Your task to perform on an android device: change text size in settings app Image 0: 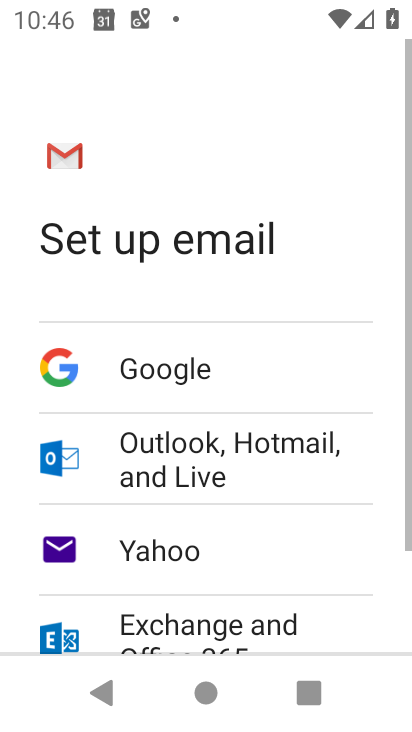
Step 0: press home button
Your task to perform on an android device: change text size in settings app Image 1: 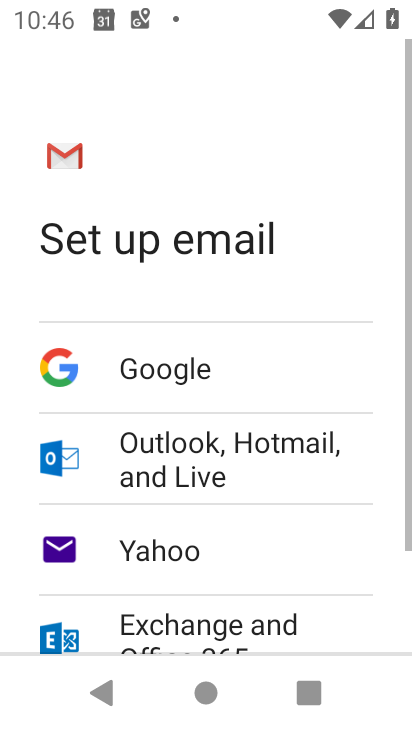
Step 1: press home button
Your task to perform on an android device: change text size in settings app Image 2: 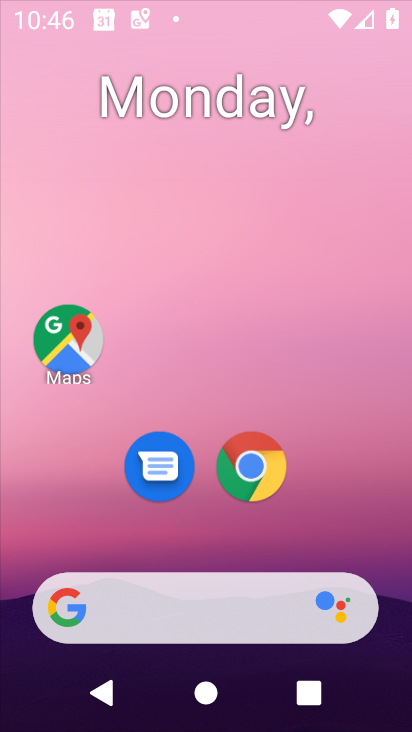
Step 2: press home button
Your task to perform on an android device: change text size in settings app Image 3: 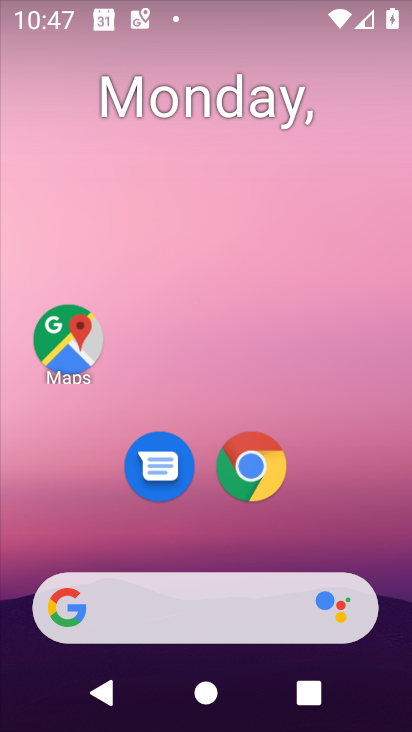
Step 3: drag from (383, 583) to (188, 216)
Your task to perform on an android device: change text size in settings app Image 4: 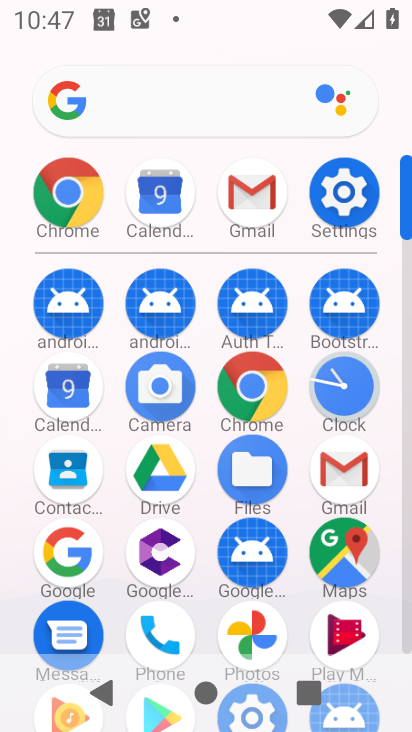
Step 4: click (342, 191)
Your task to perform on an android device: change text size in settings app Image 5: 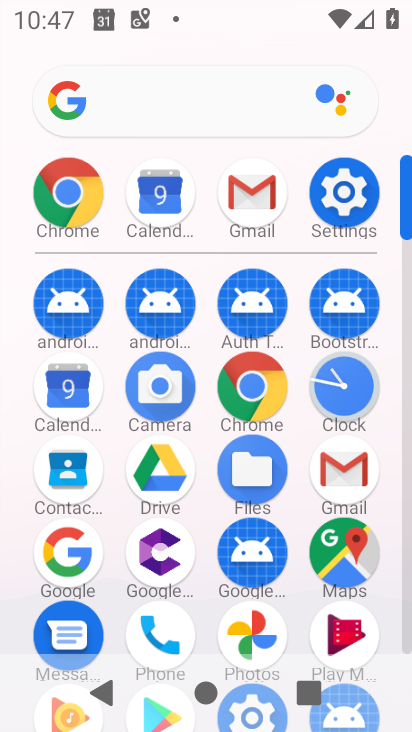
Step 5: click (343, 190)
Your task to perform on an android device: change text size in settings app Image 6: 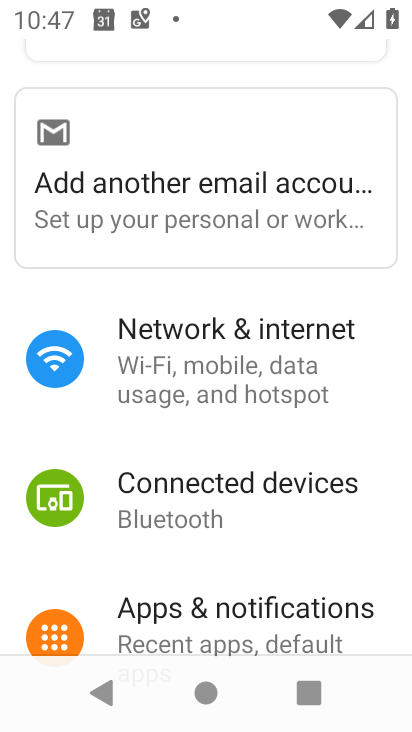
Step 6: drag from (289, 542) to (270, 170)
Your task to perform on an android device: change text size in settings app Image 7: 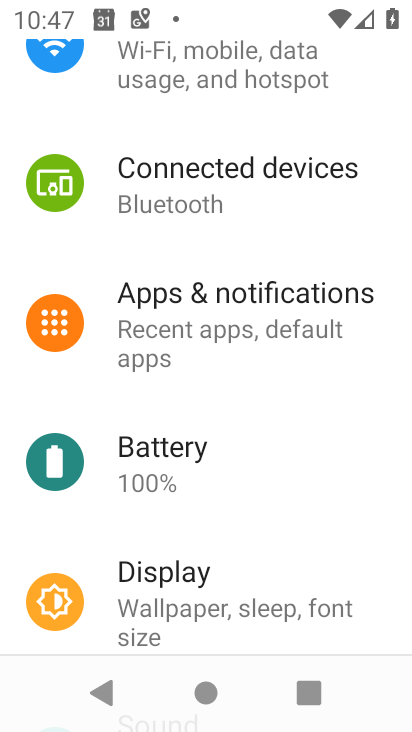
Step 7: drag from (291, 411) to (277, 251)
Your task to perform on an android device: change text size in settings app Image 8: 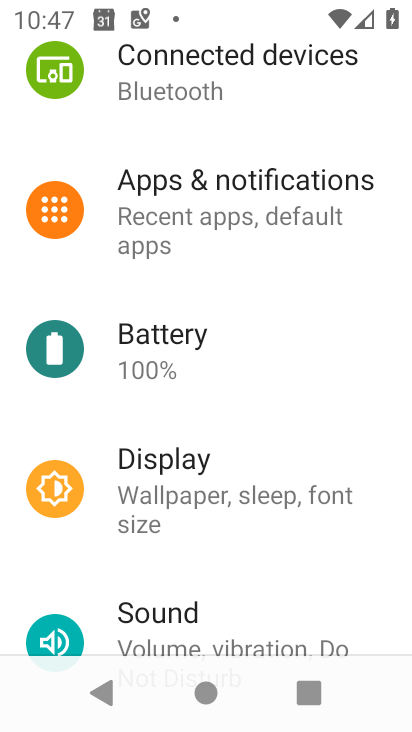
Step 8: click (195, 488)
Your task to perform on an android device: change text size in settings app Image 9: 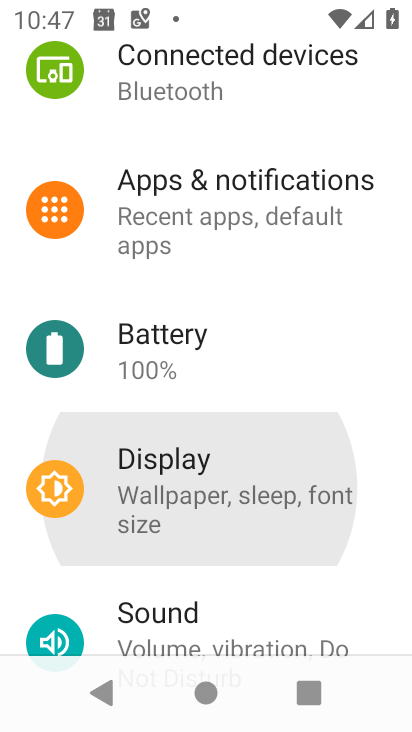
Step 9: click (195, 488)
Your task to perform on an android device: change text size in settings app Image 10: 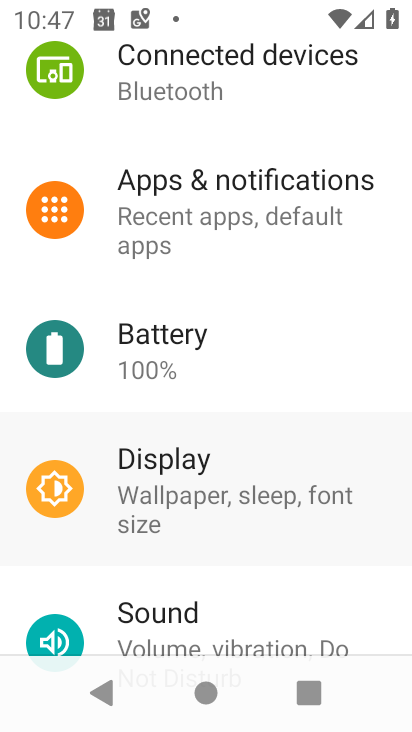
Step 10: click (194, 488)
Your task to perform on an android device: change text size in settings app Image 11: 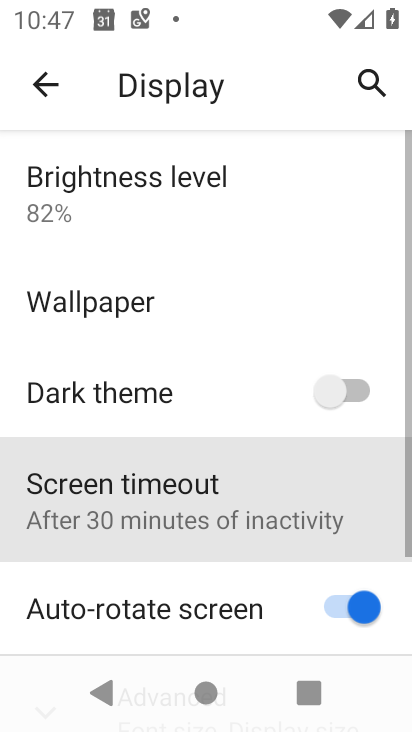
Step 11: click (195, 489)
Your task to perform on an android device: change text size in settings app Image 12: 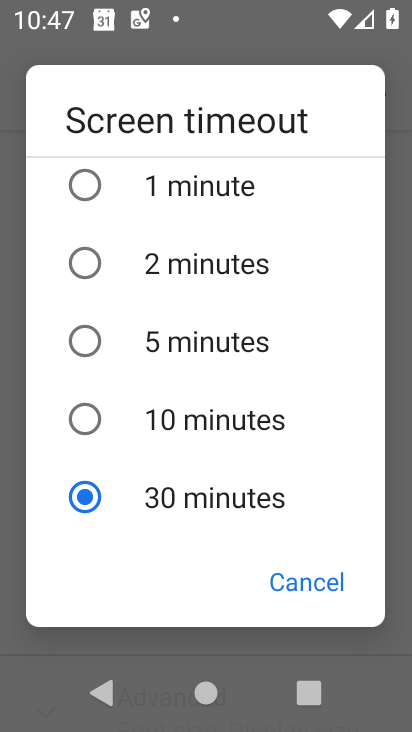
Step 12: click (313, 582)
Your task to perform on an android device: change text size in settings app Image 13: 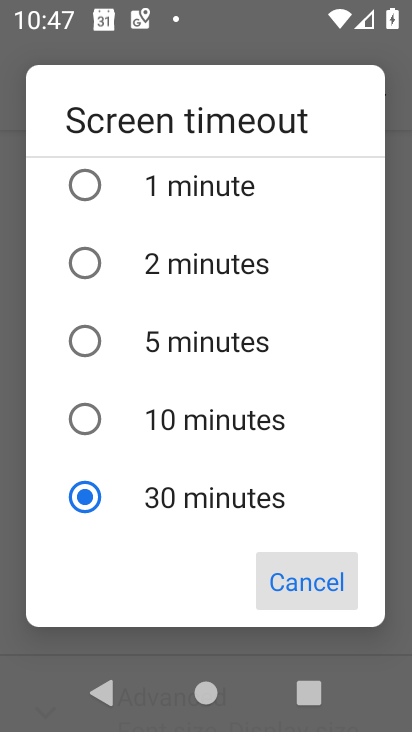
Step 13: click (312, 582)
Your task to perform on an android device: change text size in settings app Image 14: 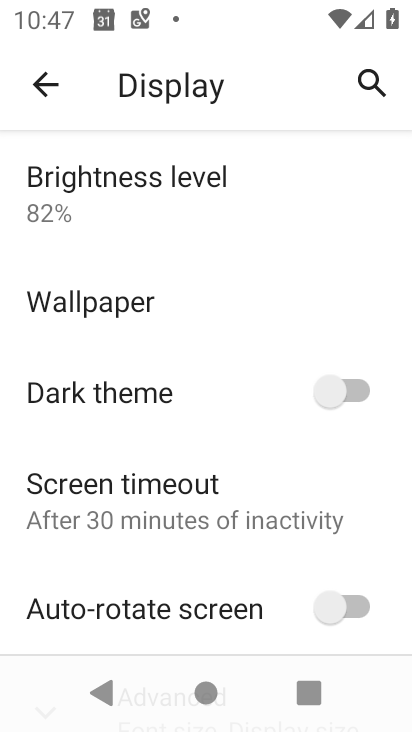
Step 14: click (40, 87)
Your task to perform on an android device: change text size in settings app Image 15: 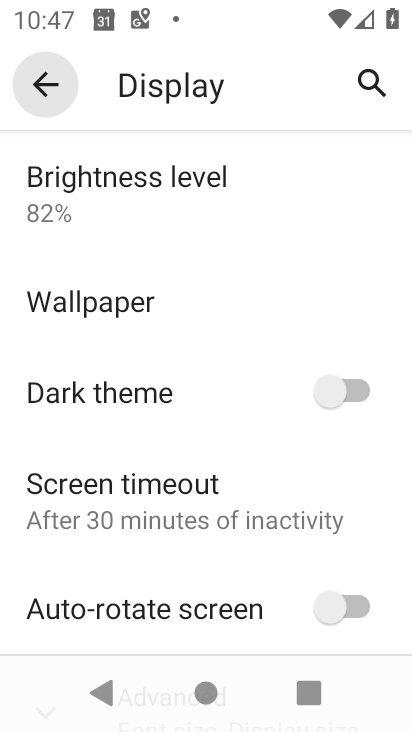
Step 15: click (40, 87)
Your task to perform on an android device: change text size in settings app Image 16: 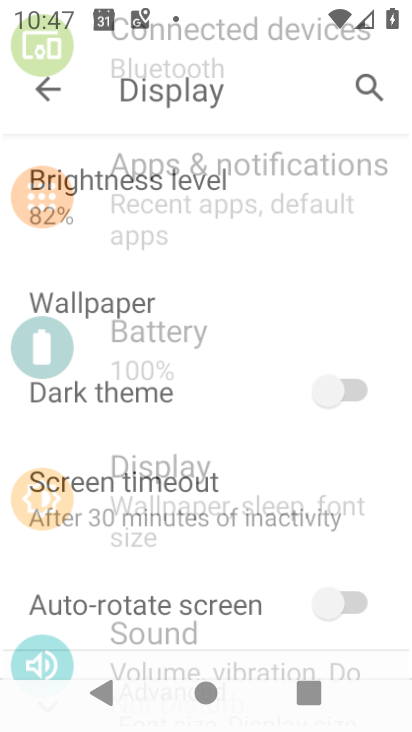
Step 16: click (40, 87)
Your task to perform on an android device: change text size in settings app Image 17: 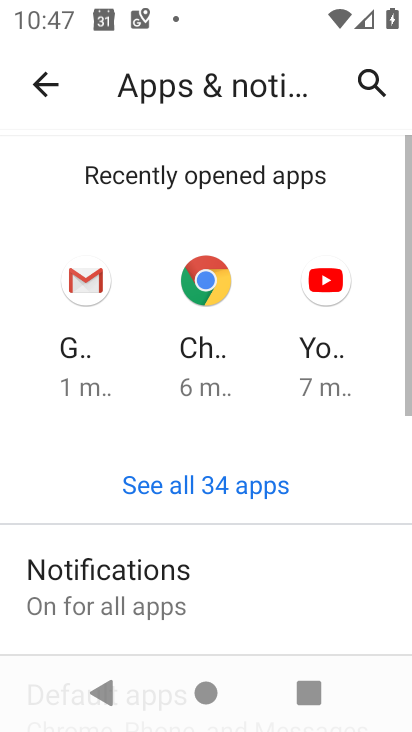
Step 17: click (51, 78)
Your task to perform on an android device: change text size in settings app Image 18: 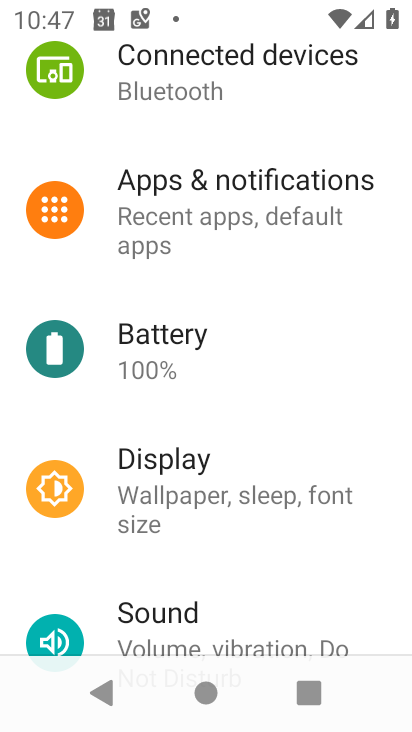
Step 18: click (169, 492)
Your task to perform on an android device: change text size in settings app Image 19: 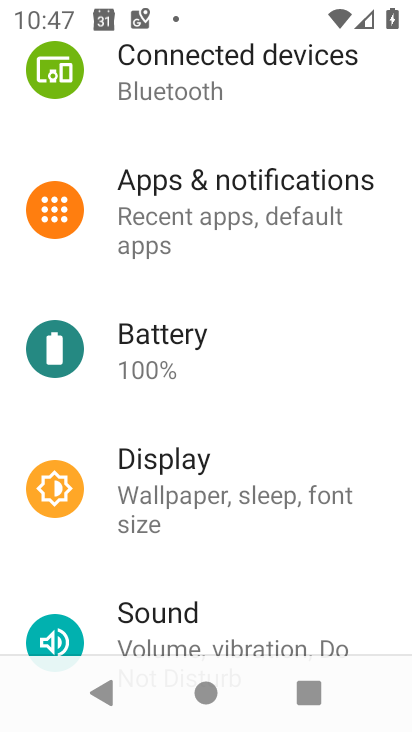
Step 19: click (169, 491)
Your task to perform on an android device: change text size in settings app Image 20: 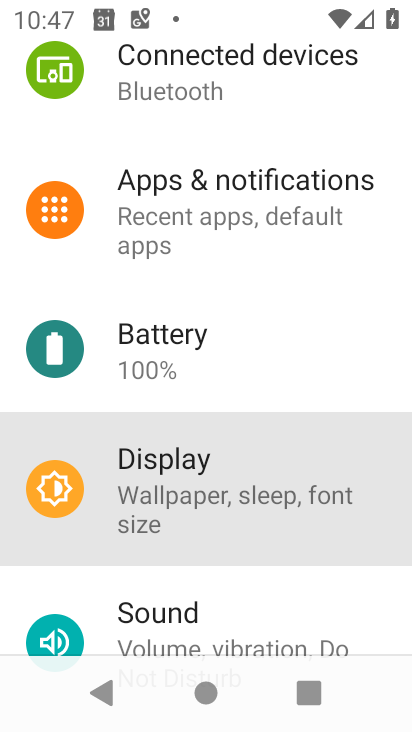
Step 20: click (169, 491)
Your task to perform on an android device: change text size in settings app Image 21: 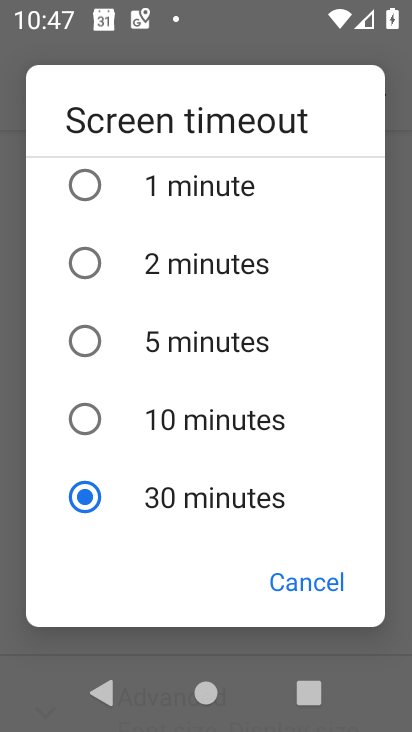
Step 21: click (310, 588)
Your task to perform on an android device: change text size in settings app Image 22: 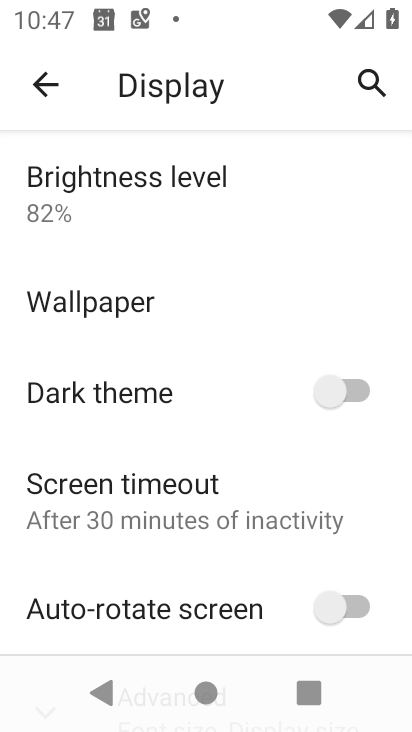
Step 22: drag from (176, 572) to (147, 199)
Your task to perform on an android device: change text size in settings app Image 23: 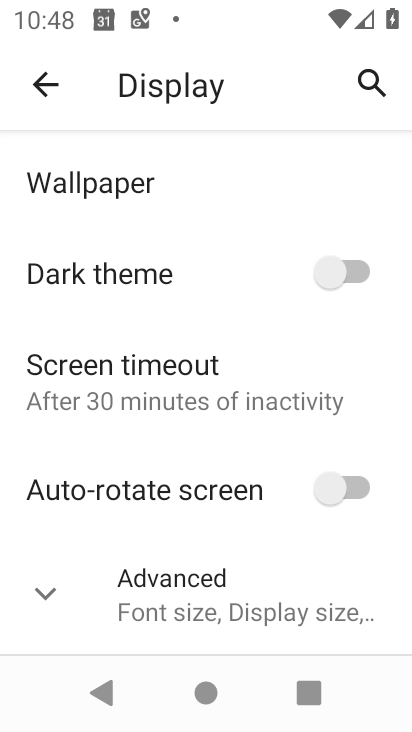
Step 23: click (218, 604)
Your task to perform on an android device: change text size in settings app Image 24: 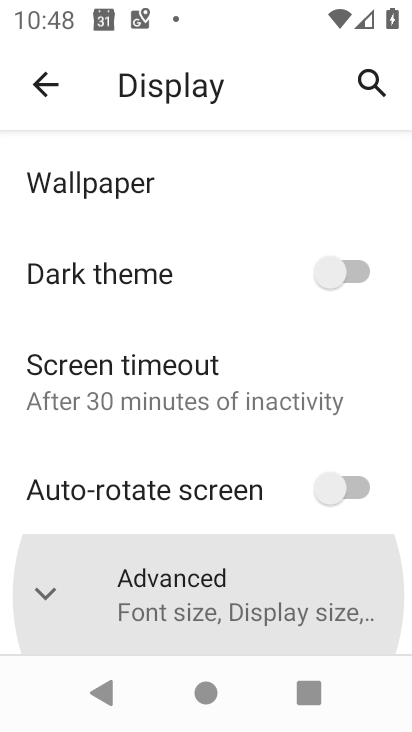
Step 24: click (218, 604)
Your task to perform on an android device: change text size in settings app Image 25: 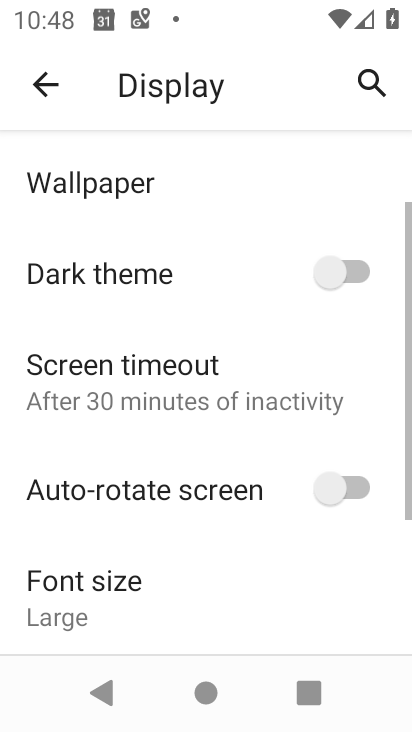
Step 25: click (218, 604)
Your task to perform on an android device: change text size in settings app Image 26: 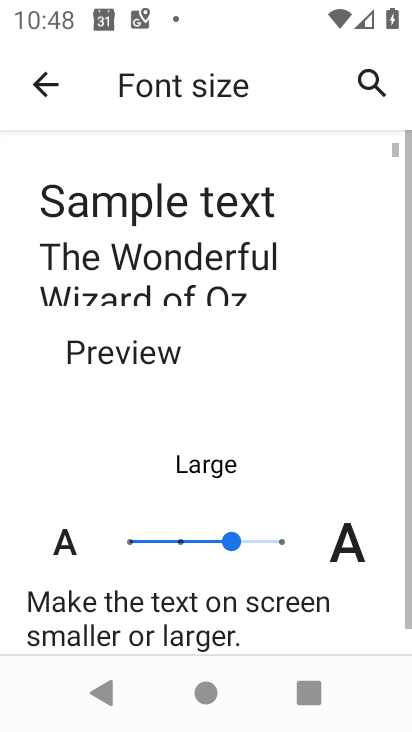
Step 26: drag from (174, 581) to (172, 362)
Your task to perform on an android device: change text size in settings app Image 27: 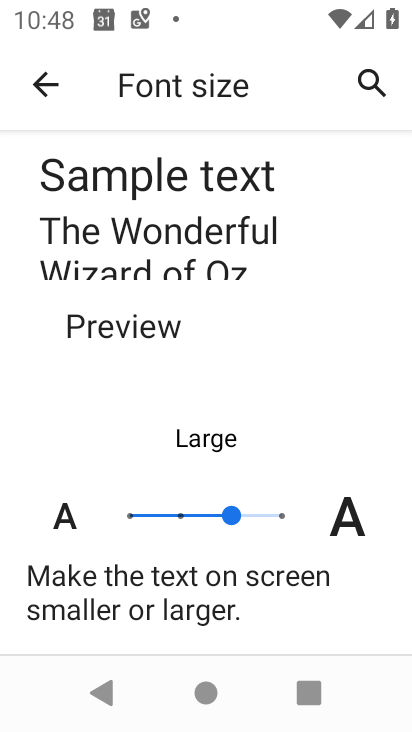
Step 27: click (230, 507)
Your task to perform on an android device: change text size in settings app Image 28: 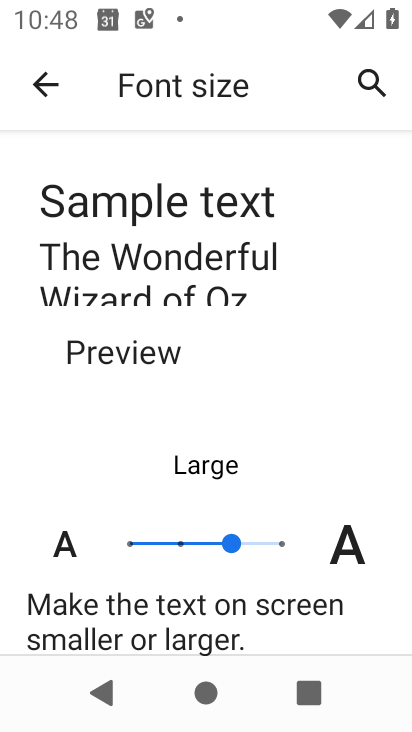
Step 28: click (229, 540)
Your task to perform on an android device: change text size in settings app Image 29: 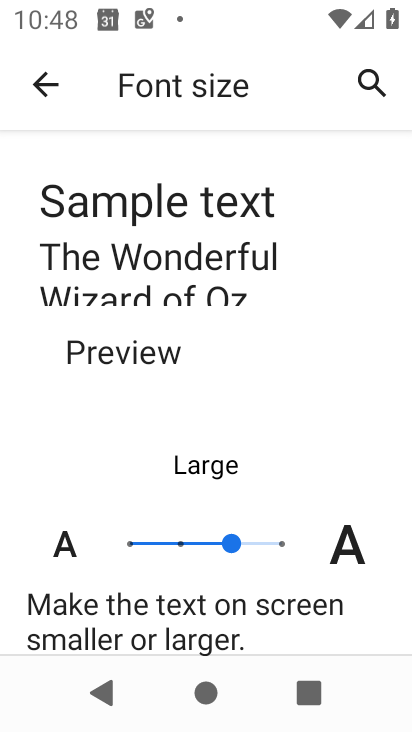
Step 29: click (178, 543)
Your task to perform on an android device: change text size in settings app Image 30: 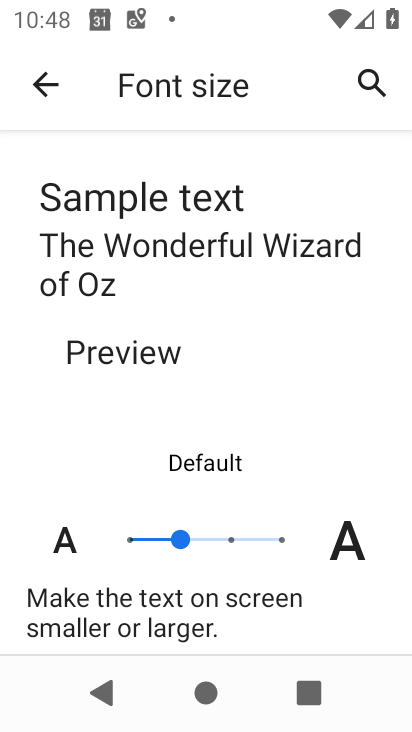
Step 30: task complete